Your task to perform on an android device: Go to network settings Image 0: 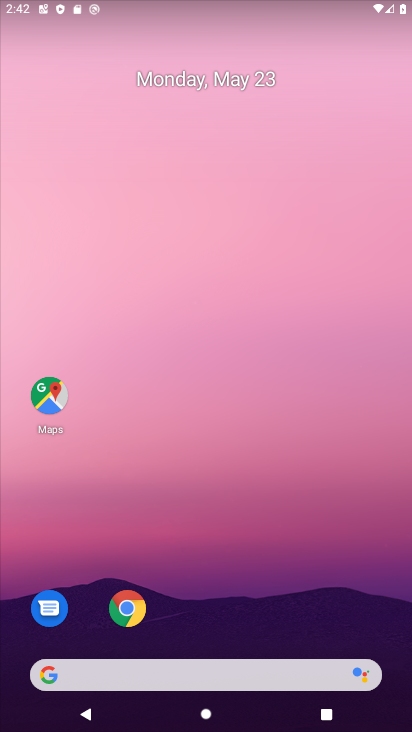
Step 0: drag from (230, 589) to (190, 141)
Your task to perform on an android device: Go to network settings Image 1: 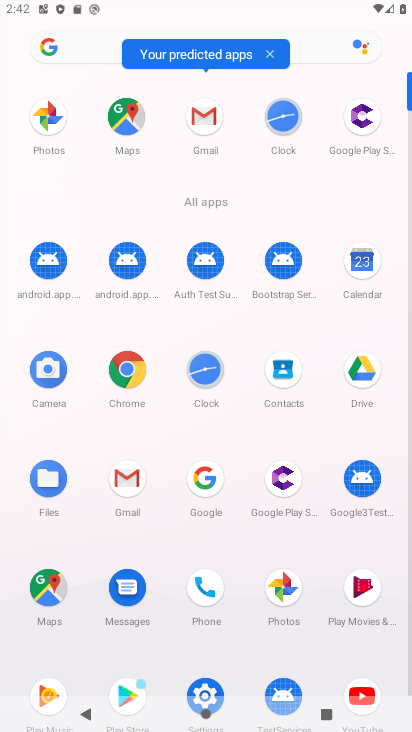
Step 1: drag from (239, 537) to (239, 411)
Your task to perform on an android device: Go to network settings Image 2: 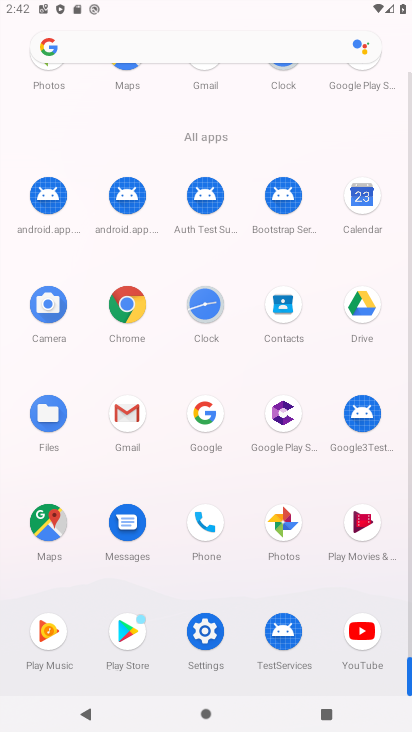
Step 2: click (206, 630)
Your task to perform on an android device: Go to network settings Image 3: 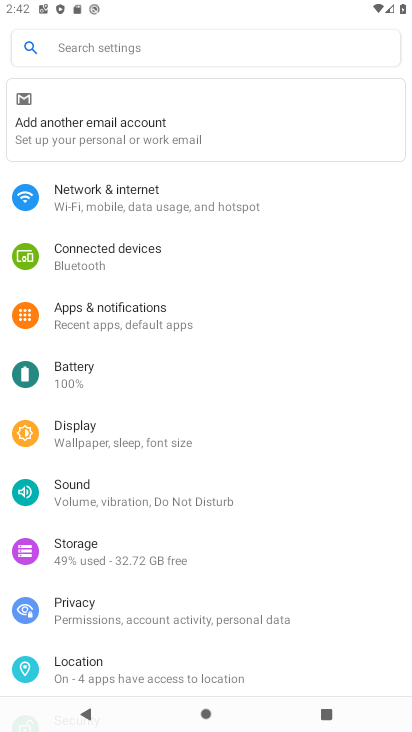
Step 3: click (114, 196)
Your task to perform on an android device: Go to network settings Image 4: 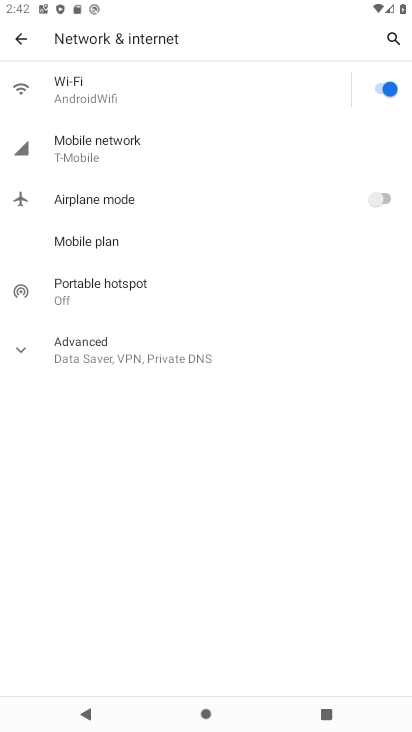
Step 4: click (114, 142)
Your task to perform on an android device: Go to network settings Image 5: 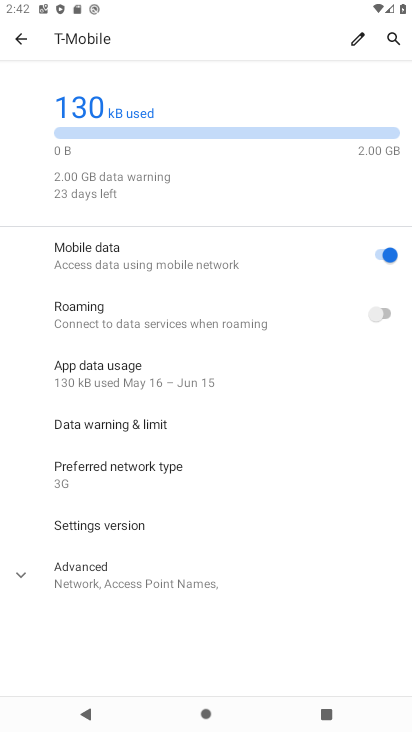
Step 5: task complete